Your task to perform on an android device: turn off notifications settings in the gmail app Image 0: 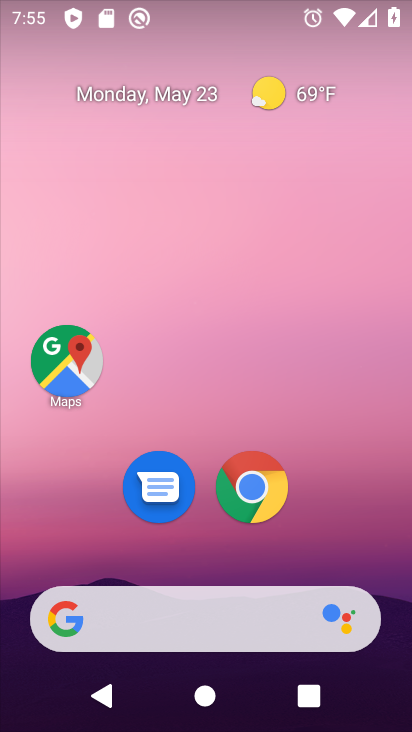
Step 0: drag from (334, 535) to (252, 9)
Your task to perform on an android device: turn off notifications settings in the gmail app Image 1: 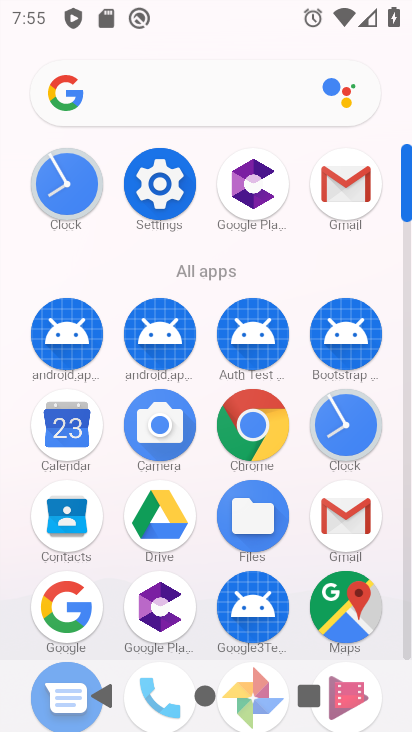
Step 1: drag from (7, 571) to (14, 252)
Your task to perform on an android device: turn off notifications settings in the gmail app Image 2: 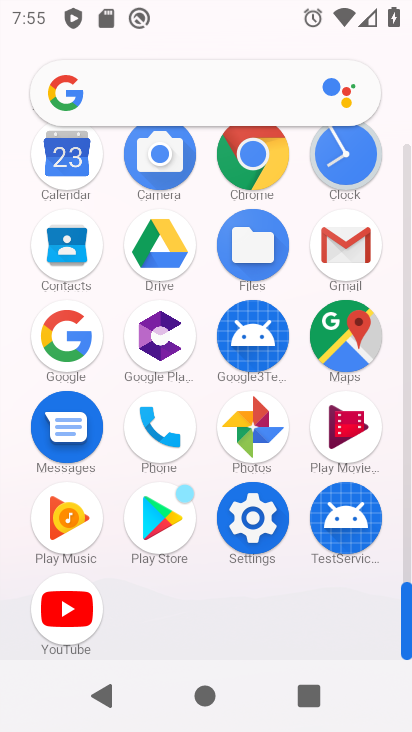
Step 2: click (253, 518)
Your task to perform on an android device: turn off notifications settings in the gmail app Image 3: 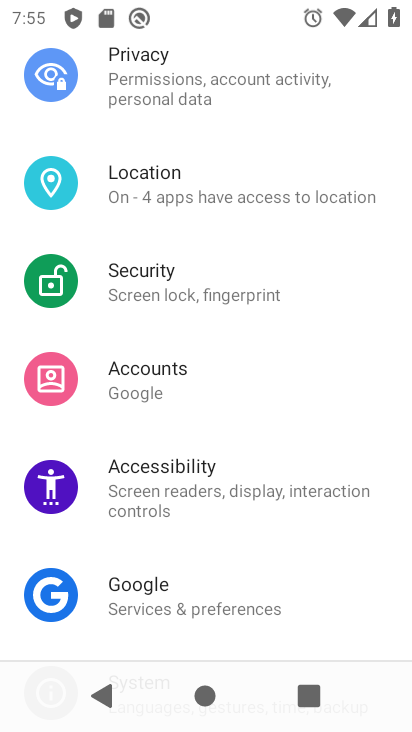
Step 3: drag from (244, 153) to (248, 611)
Your task to perform on an android device: turn off notifications settings in the gmail app Image 4: 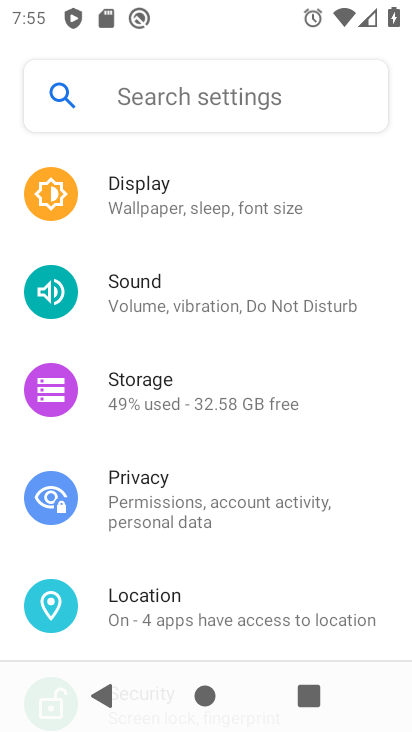
Step 4: drag from (230, 254) to (230, 621)
Your task to perform on an android device: turn off notifications settings in the gmail app Image 5: 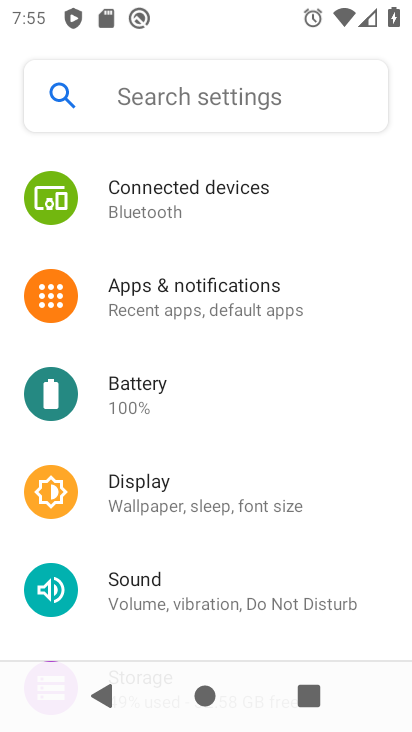
Step 5: click (210, 317)
Your task to perform on an android device: turn off notifications settings in the gmail app Image 6: 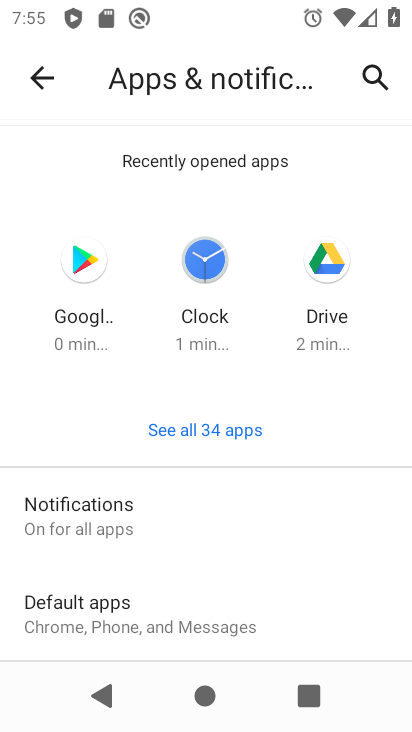
Step 6: click (165, 524)
Your task to perform on an android device: turn off notifications settings in the gmail app Image 7: 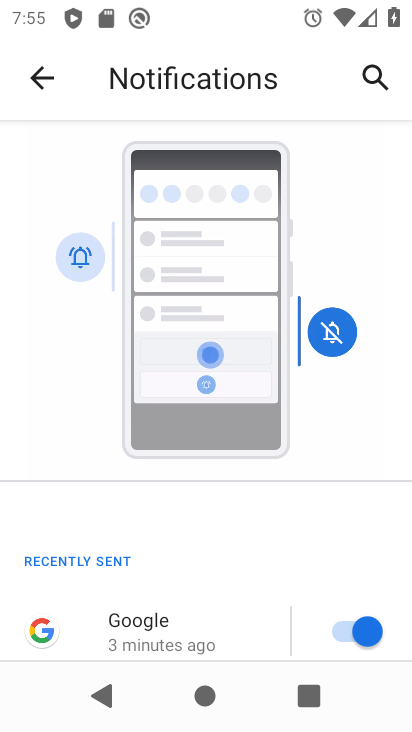
Step 7: drag from (231, 547) to (215, 103)
Your task to perform on an android device: turn off notifications settings in the gmail app Image 8: 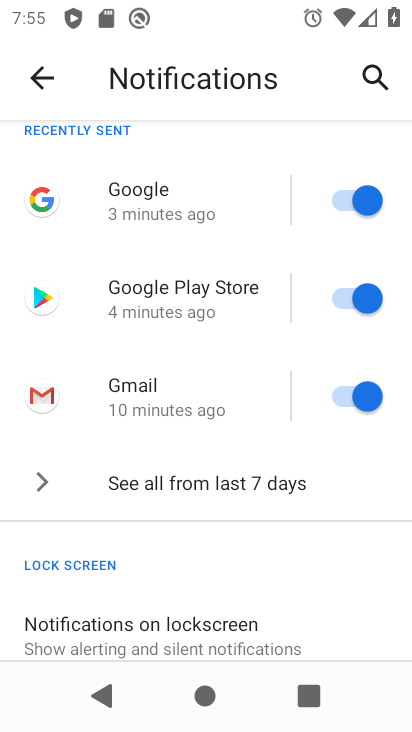
Step 8: drag from (209, 587) to (199, 135)
Your task to perform on an android device: turn off notifications settings in the gmail app Image 9: 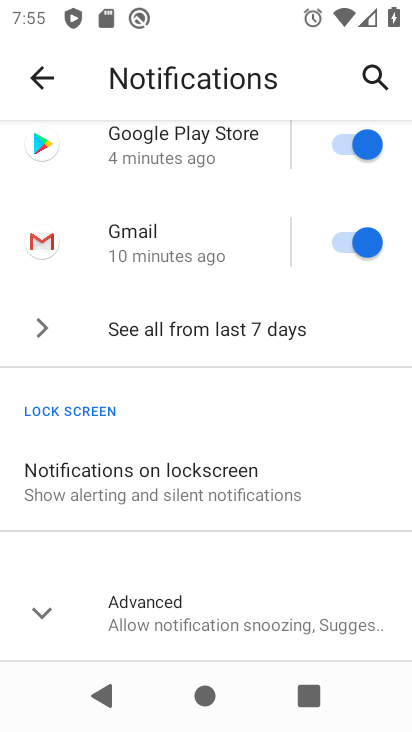
Step 9: click (178, 617)
Your task to perform on an android device: turn off notifications settings in the gmail app Image 10: 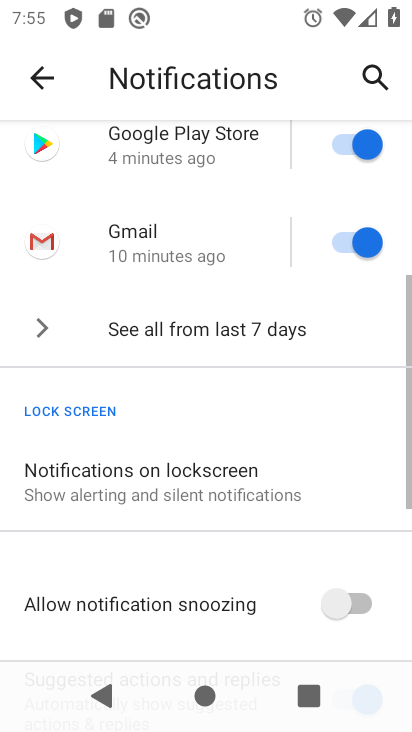
Step 10: drag from (229, 586) to (254, 104)
Your task to perform on an android device: turn off notifications settings in the gmail app Image 11: 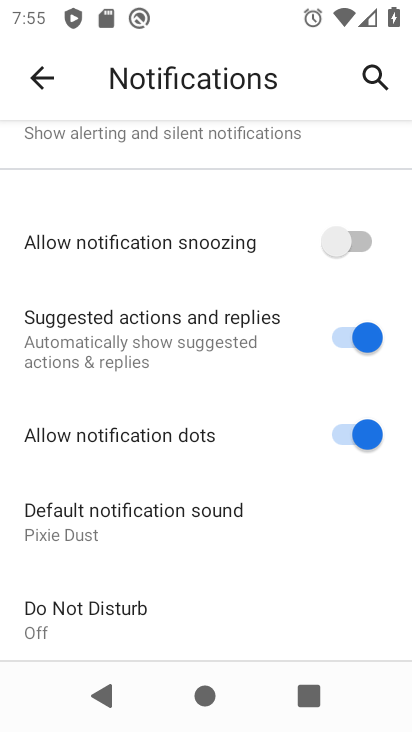
Step 11: drag from (223, 322) to (223, 613)
Your task to perform on an android device: turn off notifications settings in the gmail app Image 12: 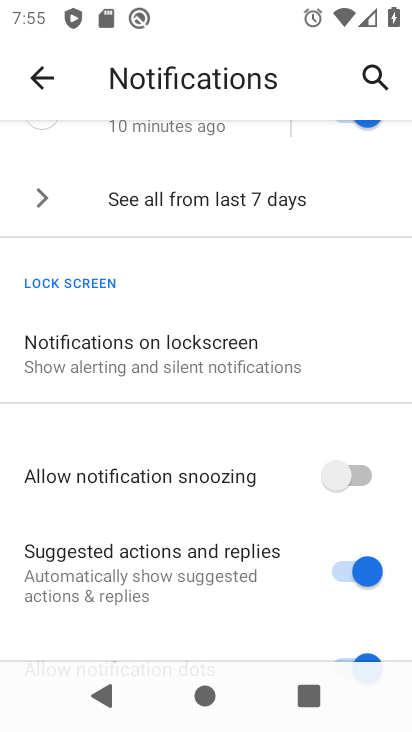
Step 12: drag from (185, 162) to (189, 530)
Your task to perform on an android device: turn off notifications settings in the gmail app Image 13: 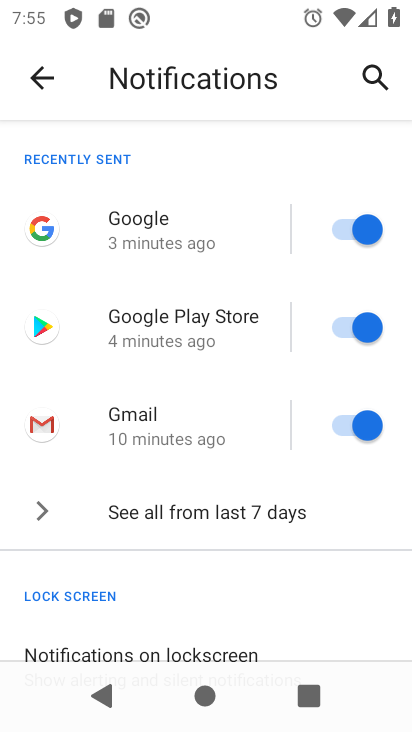
Step 13: click (341, 411)
Your task to perform on an android device: turn off notifications settings in the gmail app Image 14: 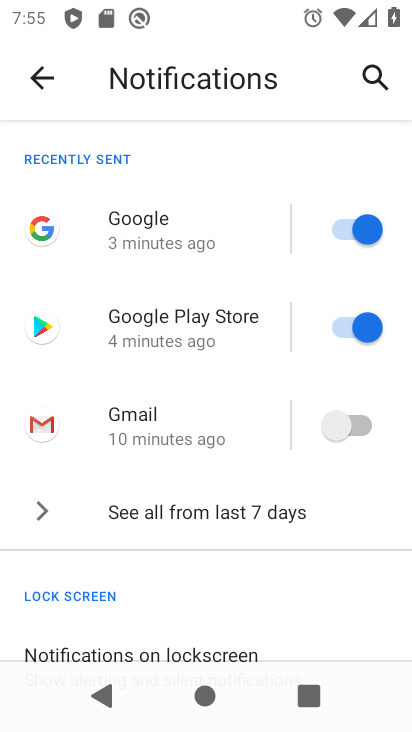
Step 14: task complete